Your task to perform on an android device: Turn on the flashlight Image 0: 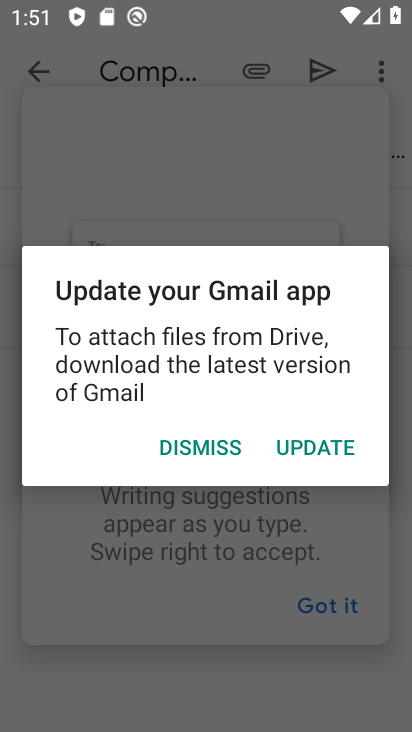
Step 0: drag from (277, 3) to (254, 310)
Your task to perform on an android device: Turn on the flashlight Image 1: 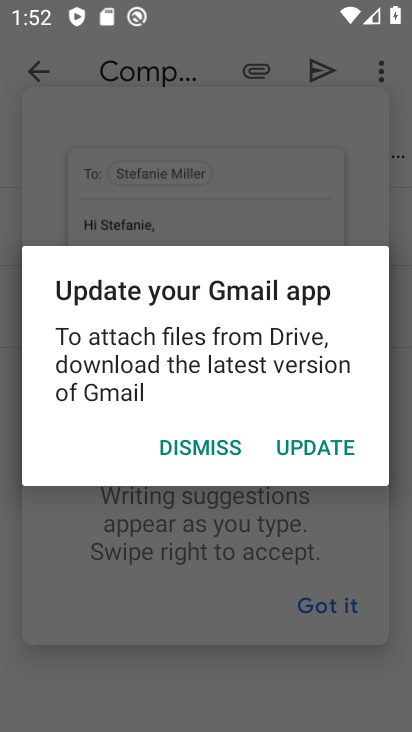
Step 1: drag from (261, 5) to (152, 690)
Your task to perform on an android device: Turn on the flashlight Image 2: 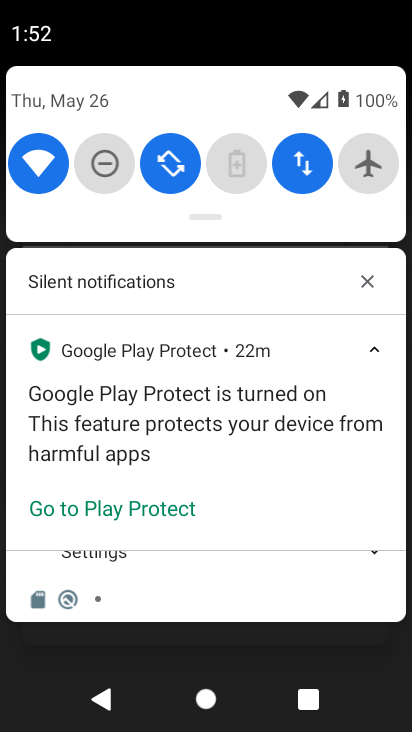
Step 2: drag from (200, 186) to (197, 484)
Your task to perform on an android device: Turn on the flashlight Image 3: 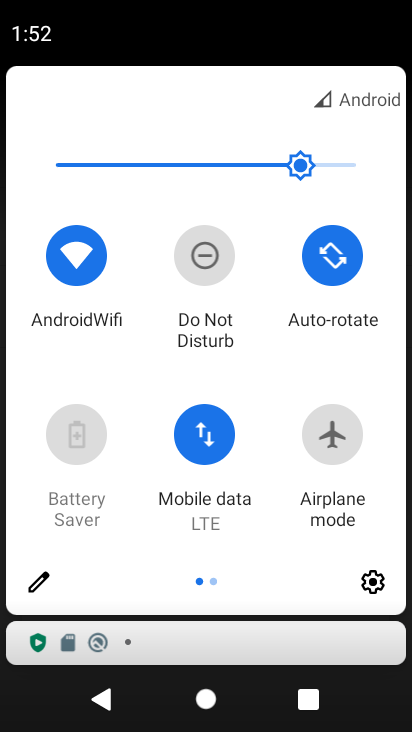
Step 3: click (42, 576)
Your task to perform on an android device: Turn on the flashlight Image 4: 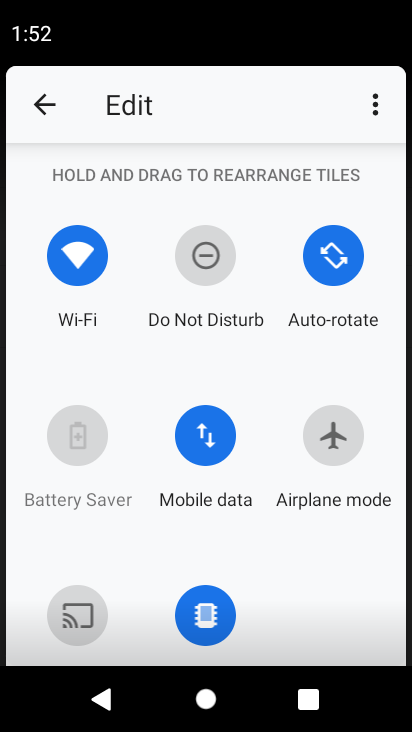
Step 4: task complete